Your task to perform on an android device: Find coffee shops on Maps Image 0: 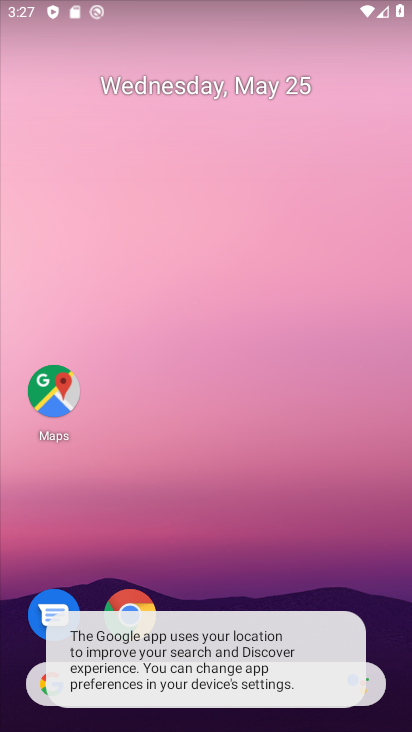
Step 0: click (65, 407)
Your task to perform on an android device: Find coffee shops on Maps Image 1: 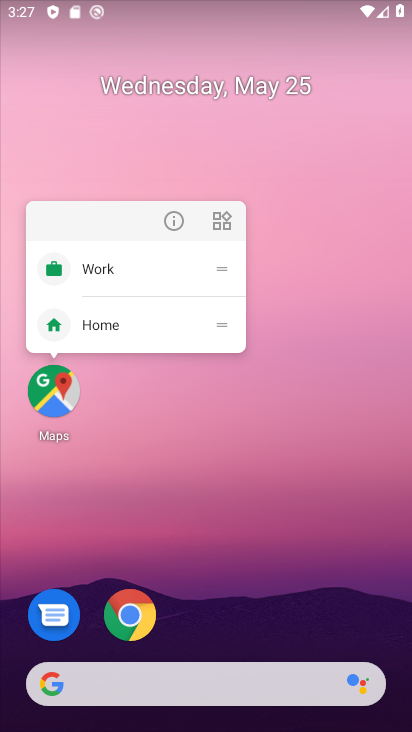
Step 1: click (65, 406)
Your task to perform on an android device: Find coffee shops on Maps Image 2: 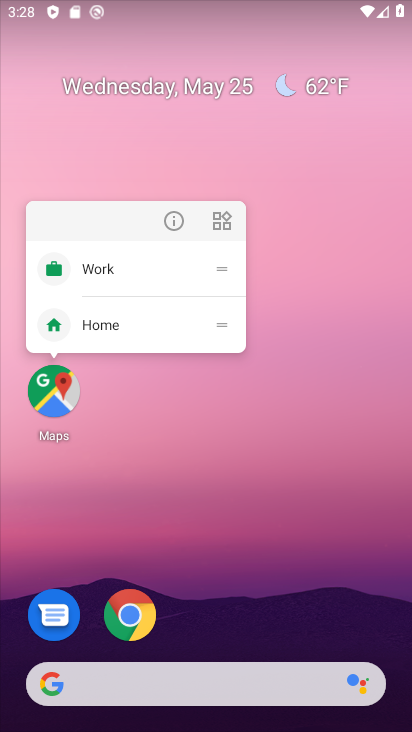
Step 2: click (57, 408)
Your task to perform on an android device: Find coffee shops on Maps Image 3: 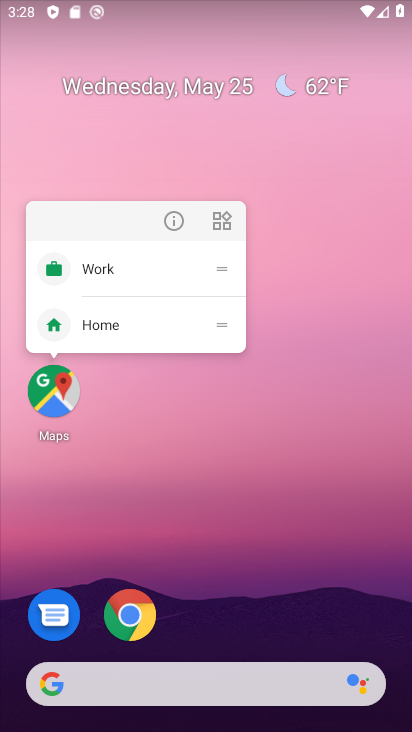
Step 3: click (57, 408)
Your task to perform on an android device: Find coffee shops on Maps Image 4: 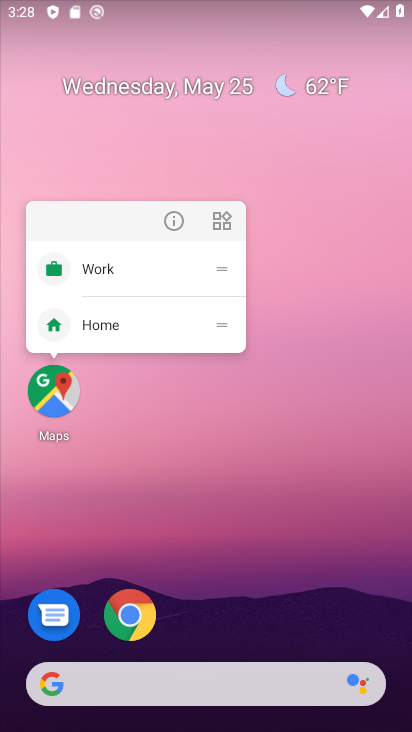
Step 4: click (59, 384)
Your task to perform on an android device: Find coffee shops on Maps Image 5: 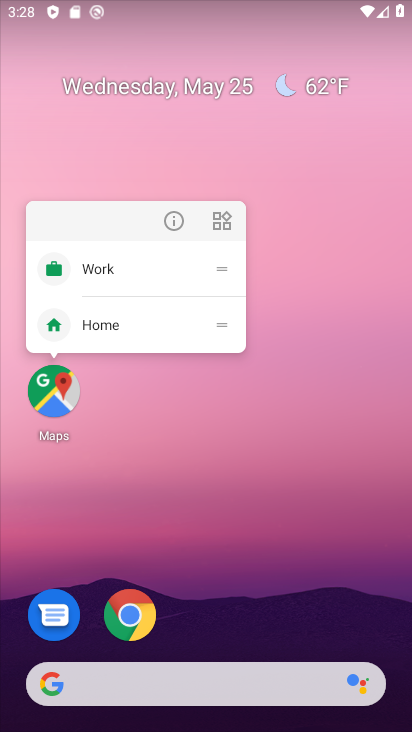
Step 5: click (57, 384)
Your task to perform on an android device: Find coffee shops on Maps Image 6: 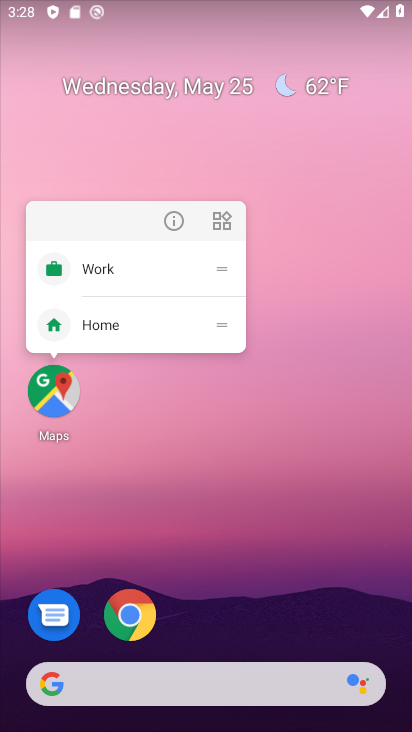
Step 6: click (56, 384)
Your task to perform on an android device: Find coffee shops on Maps Image 7: 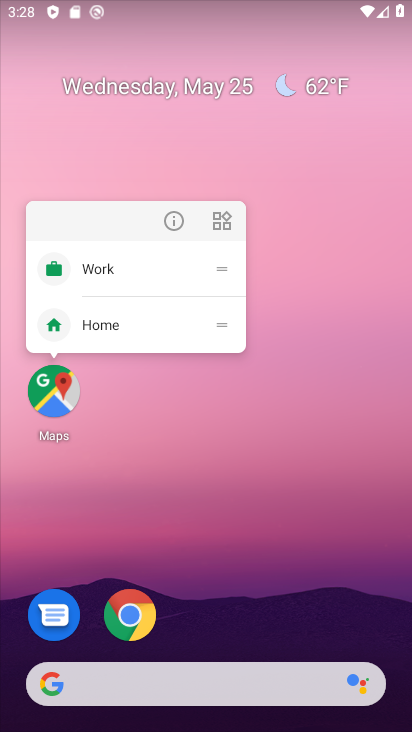
Step 7: click (52, 409)
Your task to perform on an android device: Find coffee shops on Maps Image 8: 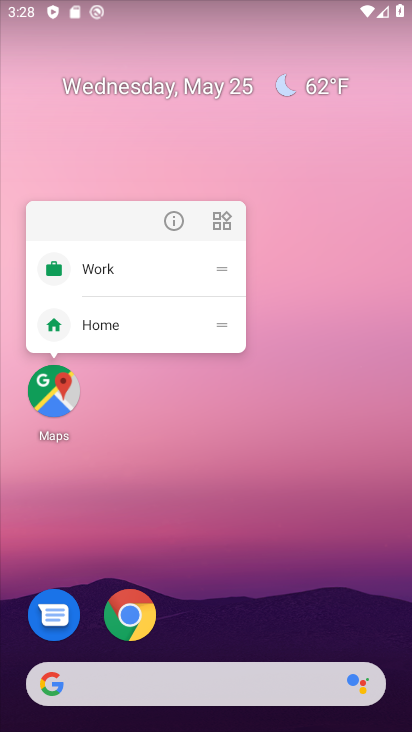
Step 8: click (52, 409)
Your task to perform on an android device: Find coffee shops on Maps Image 9: 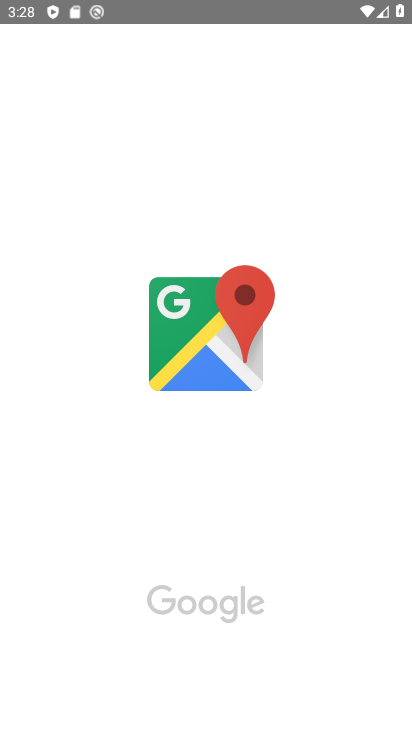
Step 9: click (52, 409)
Your task to perform on an android device: Find coffee shops on Maps Image 10: 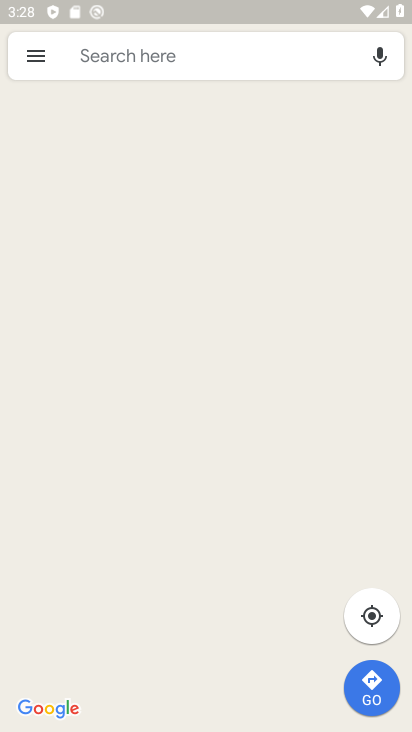
Step 10: click (143, 55)
Your task to perform on an android device: Find coffee shops on Maps Image 11: 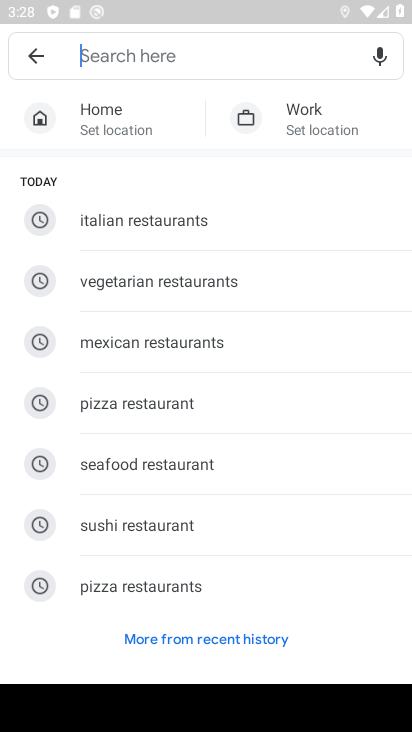
Step 11: type "Coffee shops"
Your task to perform on an android device: Find coffee shops on Maps Image 12: 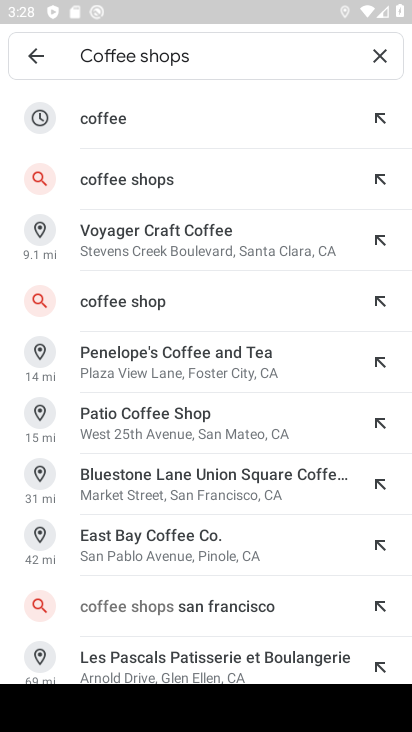
Step 12: click (202, 178)
Your task to perform on an android device: Find coffee shops on Maps Image 13: 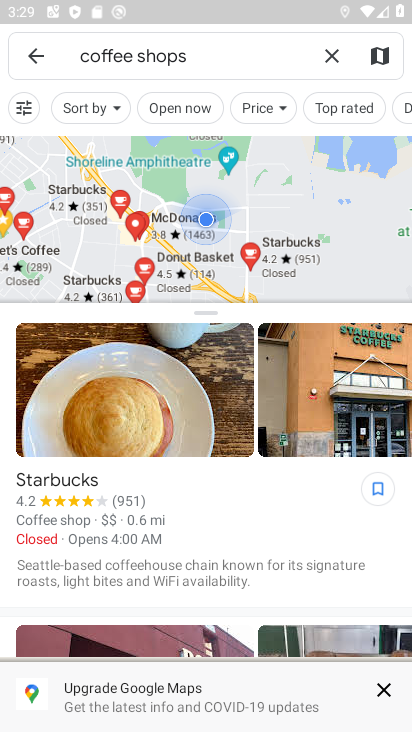
Step 13: task complete